Your task to perform on an android device: create a new album in the google photos Image 0: 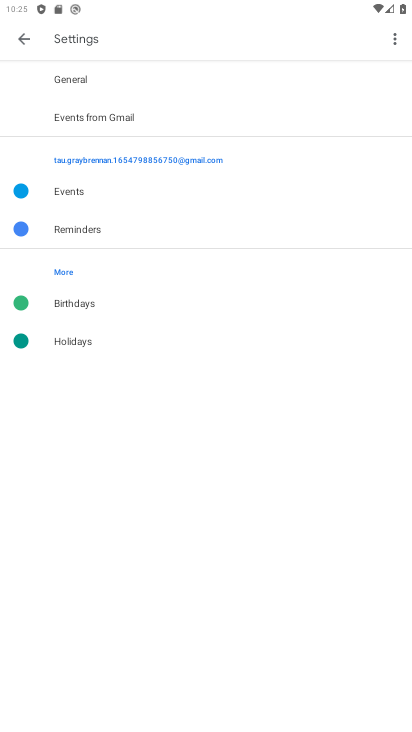
Step 0: press home button
Your task to perform on an android device: create a new album in the google photos Image 1: 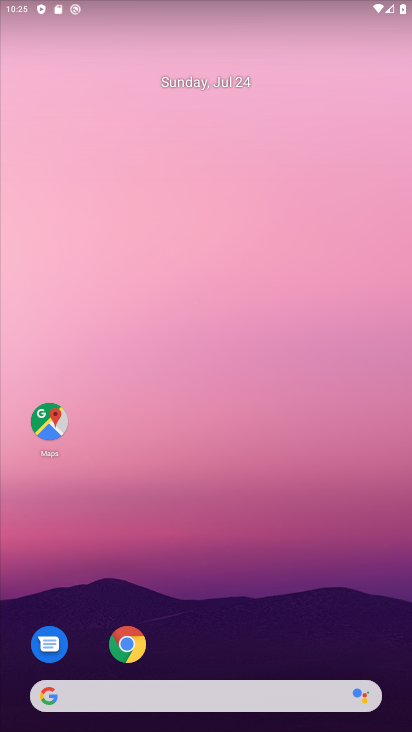
Step 1: drag from (230, 656) to (235, 11)
Your task to perform on an android device: create a new album in the google photos Image 2: 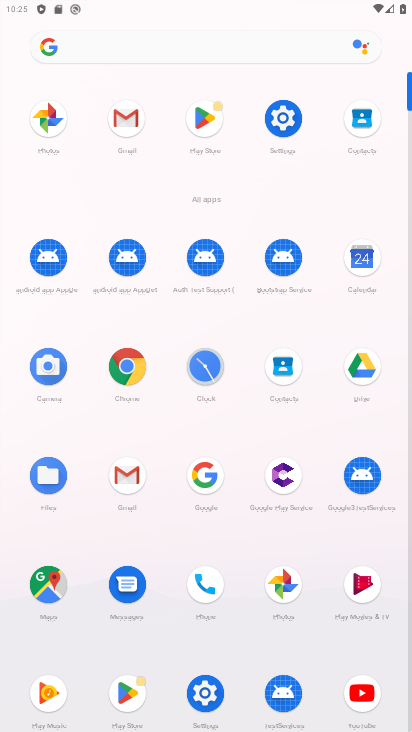
Step 2: click (279, 593)
Your task to perform on an android device: create a new album in the google photos Image 3: 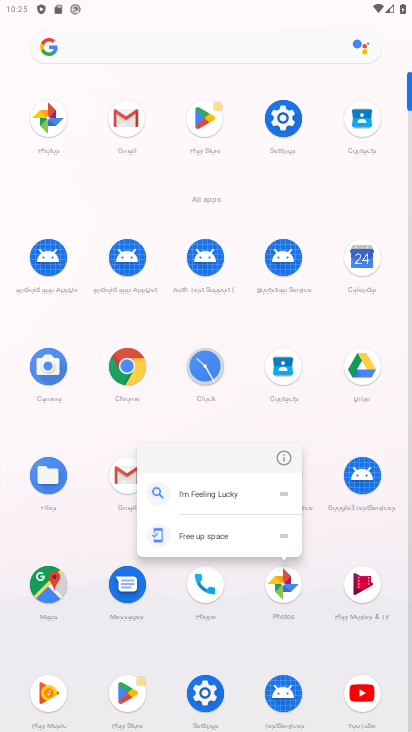
Step 3: click (279, 593)
Your task to perform on an android device: create a new album in the google photos Image 4: 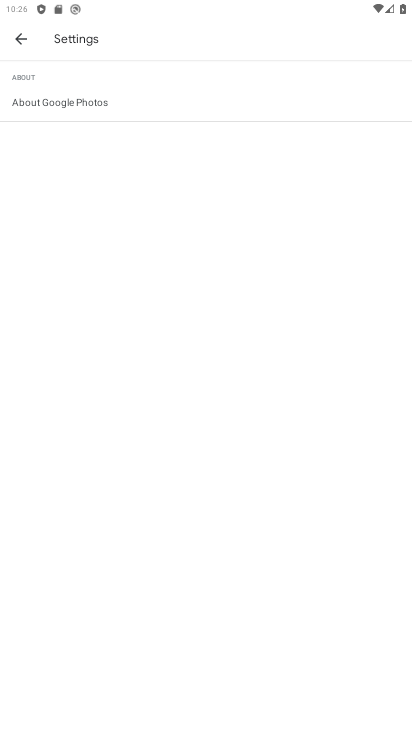
Step 4: click (16, 38)
Your task to perform on an android device: create a new album in the google photos Image 5: 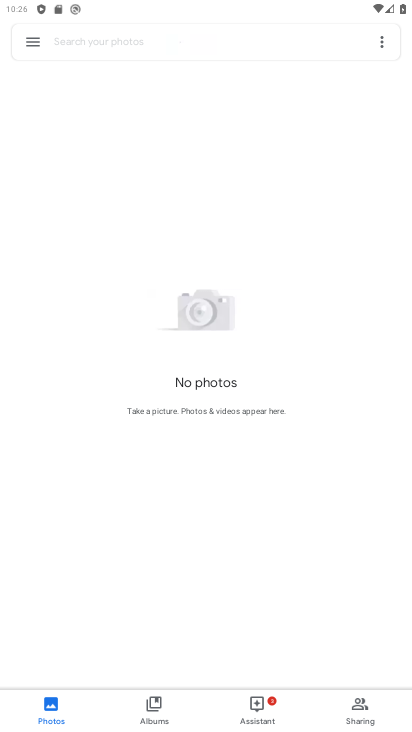
Step 5: click (44, 707)
Your task to perform on an android device: create a new album in the google photos Image 6: 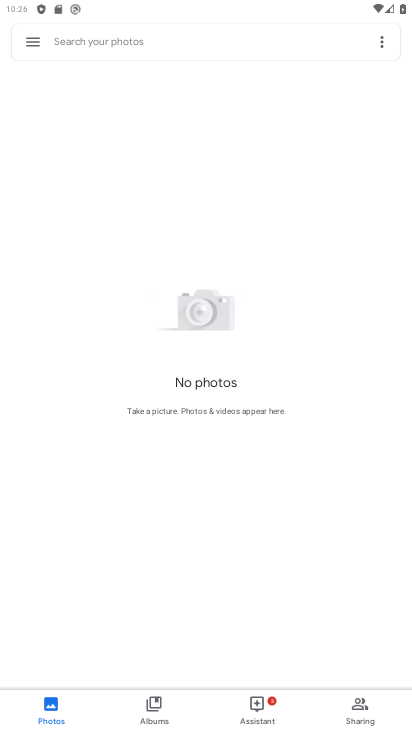
Step 6: task complete